Your task to perform on an android device: toggle sleep mode Image 0: 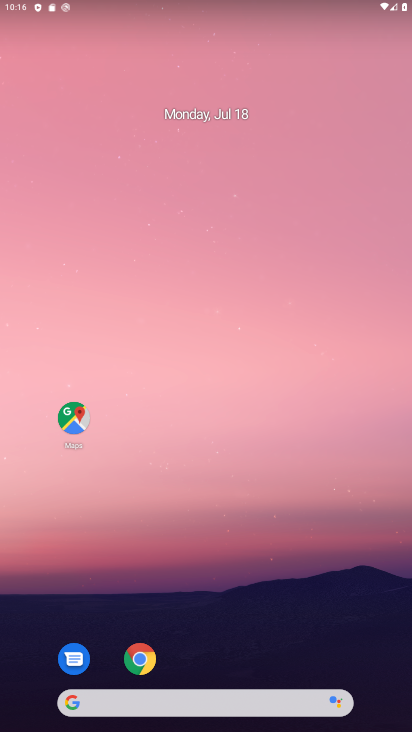
Step 0: drag from (216, 663) to (220, 124)
Your task to perform on an android device: toggle sleep mode Image 1: 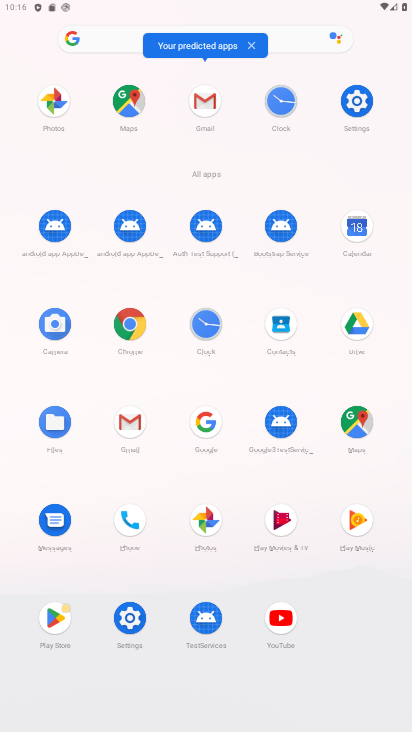
Step 1: click (128, 617)
Your task to perform on an android device: toggle sleep mode Image 2: 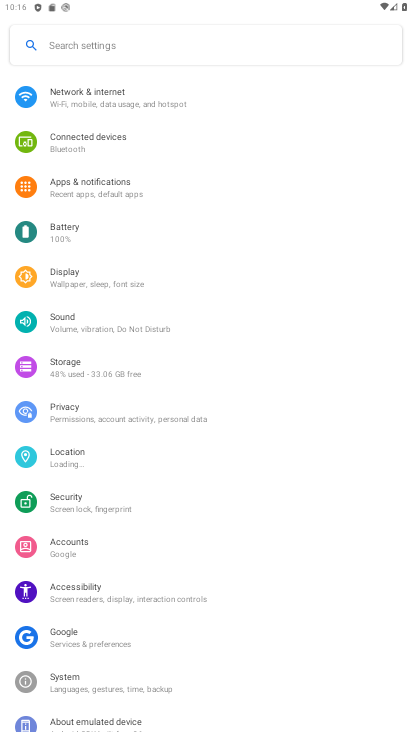
Step 2: click (98, 276)
Your task to perform on an android device: toggle sleep mode Image 3: 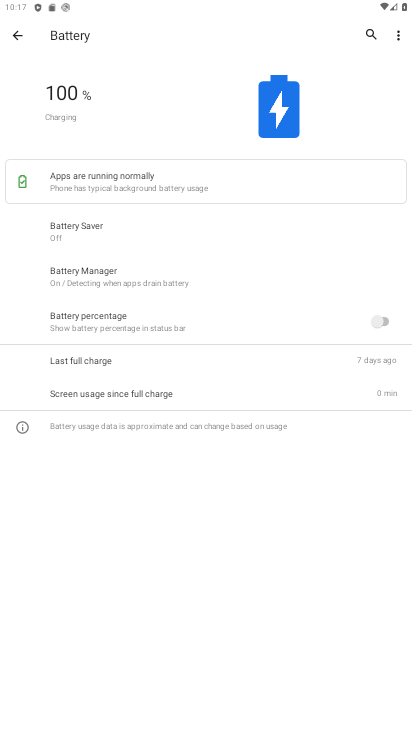
Step 3: task complete